Your task to perform on an android device: toggle notifications settings in the gmail app Image 0: 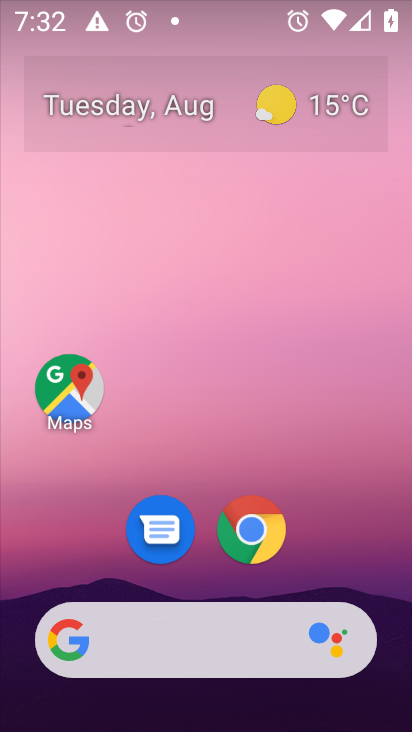
Step 0: press home button
Your task to perform on an android device: toggle notifications settings in the gmail app Image 1: 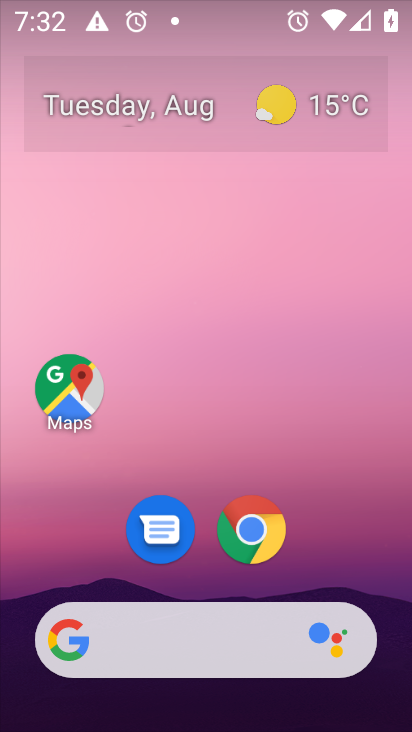
Step 1: drag from (202, 535) to (149, 7)
Your task to perform on an android device: toggle notifications settings in the gmail app Image 2: 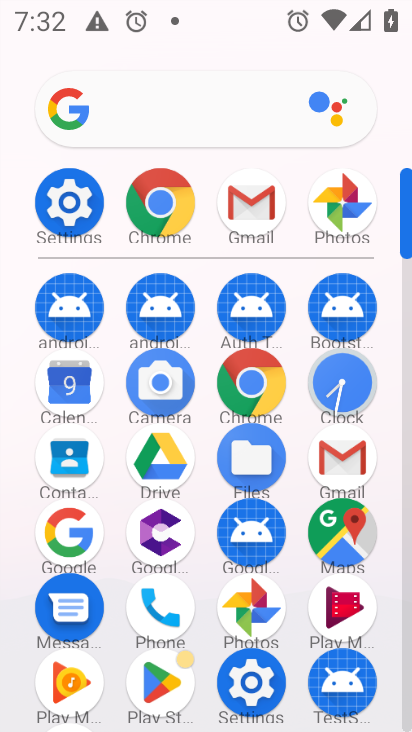
Step 2: click (251, 201)
Your task to perform on an android device: toggle notifications settings in the gmail app Image 3: 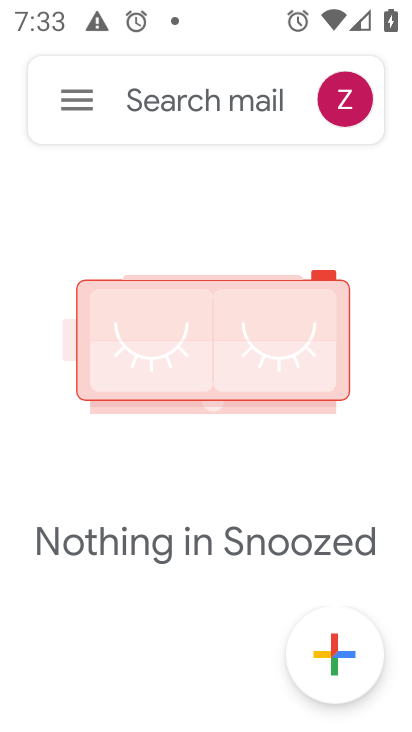
Step 3: click (73, 97)
Your task to perform on an android device: toggle notifications settings in the gmail app Image 4: 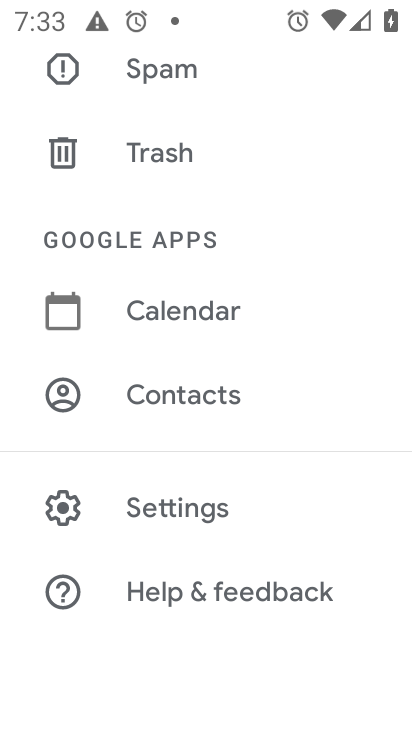
Step 4: click (179, 506)
Your task to perform on an android device: toggle notifications settings in the gmail app Image 5: 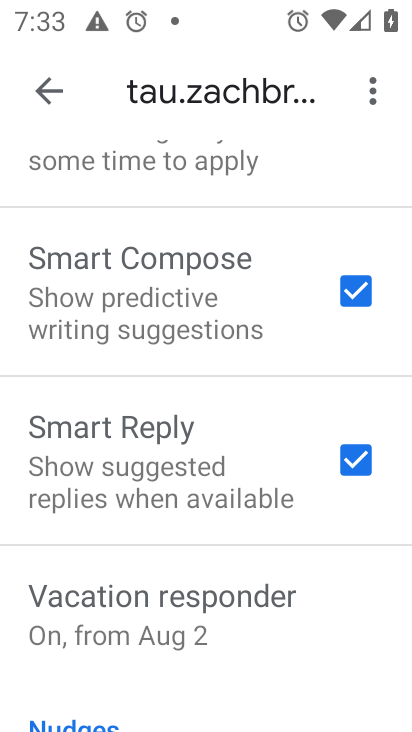
Step 5: drag from (304, 186) to (267, 669)
Your task to perform on an android device: toggle notifications settings in the gmail app Image 6: 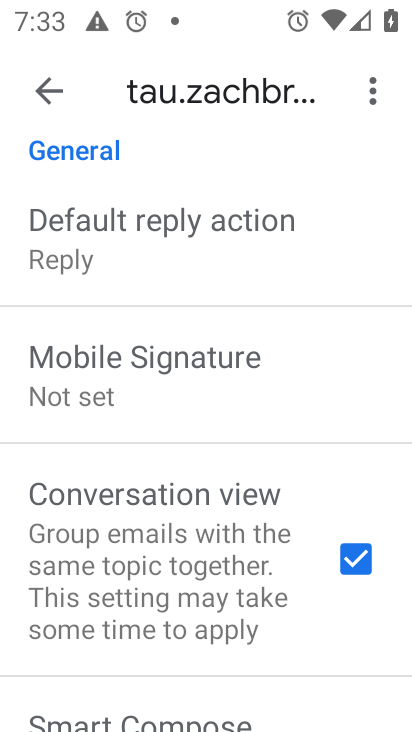
Step 6: drag from (311, 265) to (277, 722)
Your task to perform on an android device: toggle notifications settings in the gmail app Image 7: 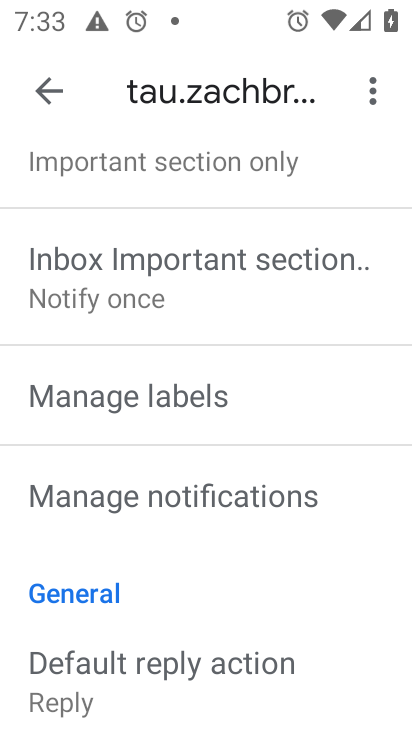
Step 7: click (152, 502)
Your task to perform on an android device: toggle notifications settings in the gmail app Image 8: 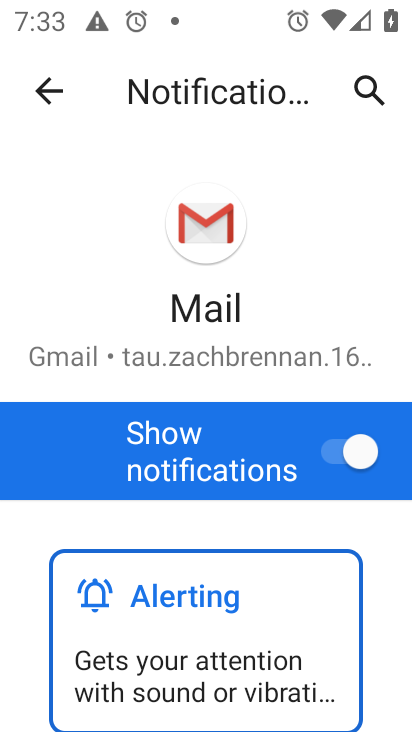
Step 8: click (355, 452)
Your task to perform on an android device: toggle notifications settings in the gmail app Image 9: 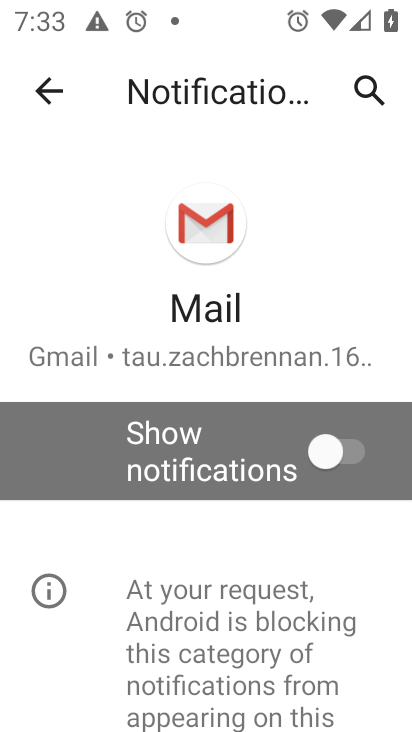
Step 9: task complete